Your task to perform on an android device: Search for Mexican restaurants on Maps Image 0: 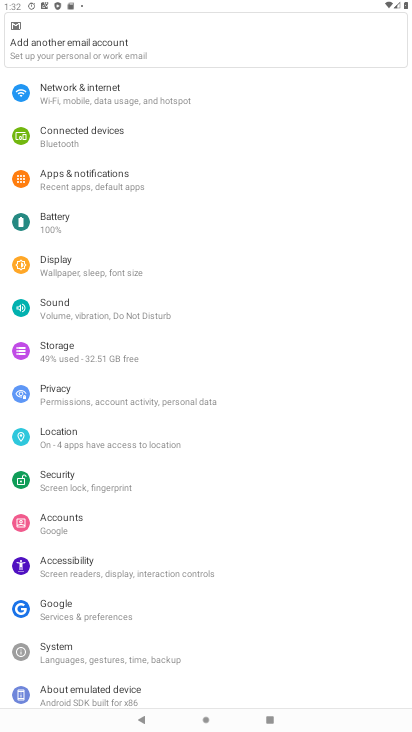
Step 0: press home button
Your task to perform on an android device: Search for Mexican restaurants on Maps Image 1: 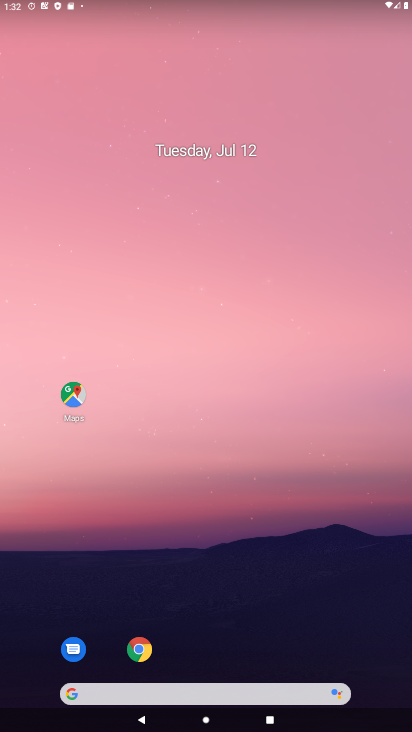
Step 1: drag from (348, 706) to (332, 182)
Your task to perform on an android device: Search for Mexican restaurants on Maps Image 2: 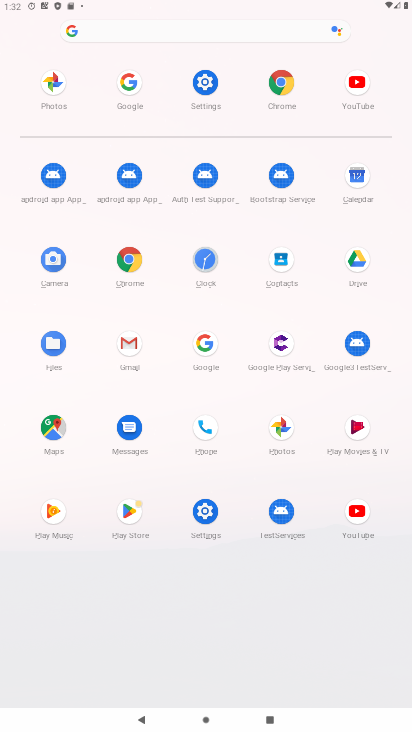
Step 2: click (55, 434)
Your task to perform on an android device: Search for Mexican restaurants on Maps Image 3: 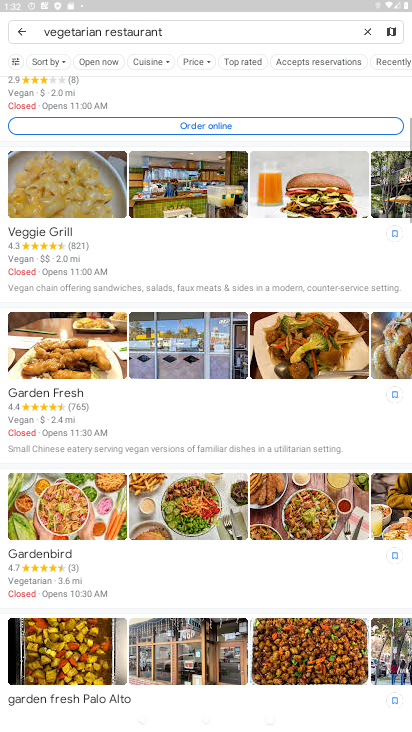
Step 3: press back button
Your task to perform on an android device: Search for Mexican restaurants on Maps Image 4: 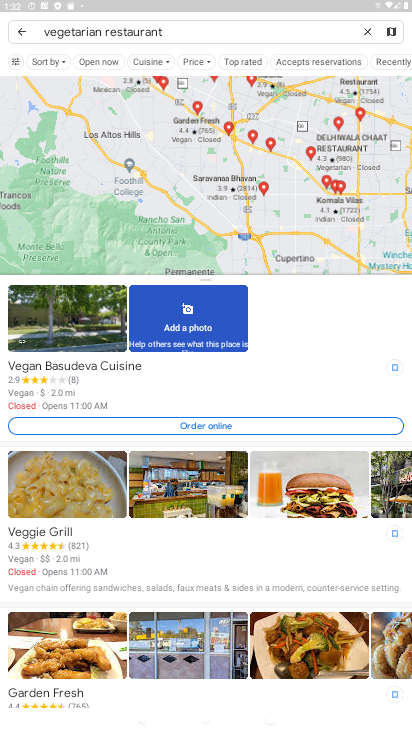
Step 4: click (373, 15)
Your task to perform on an android device: Search for Mexican restaurants on Maps Image 5: 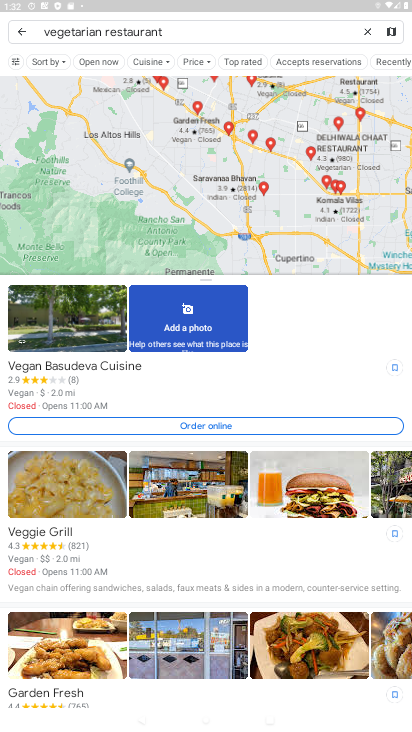
Step 5: click (368, 27)
Your task to perform on an android device: Search for Mexican restaurants on Maps Image 6: 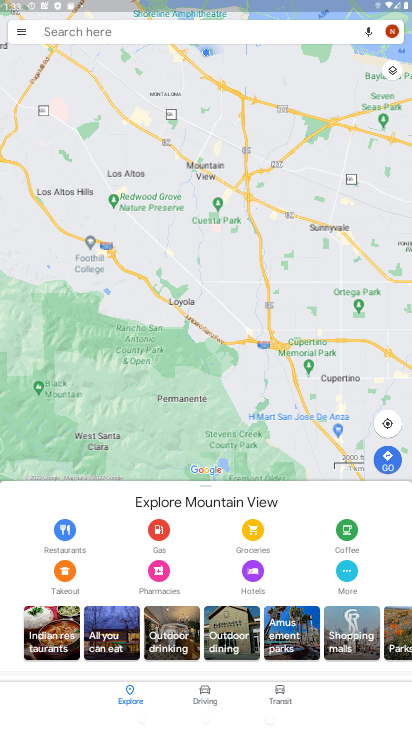
Step 6: click (129, 29)
Your task to perform on an android device: Search for Mexican restaurants on Maps Image 7: 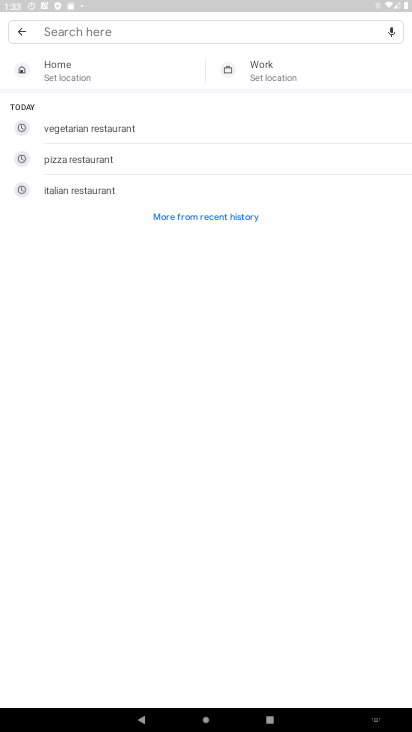
Step 7: type "Mexican restaurants"
Your task to perform on an android device: Search for Mexican restaurants on Maps Image 8: 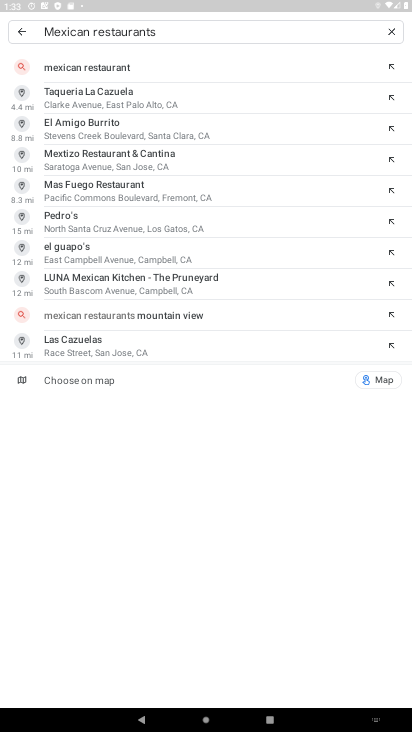
Step 8: click (111, 73)
Your task to perform on an android device: Search for Mexican restaurants on Maps Image 9: 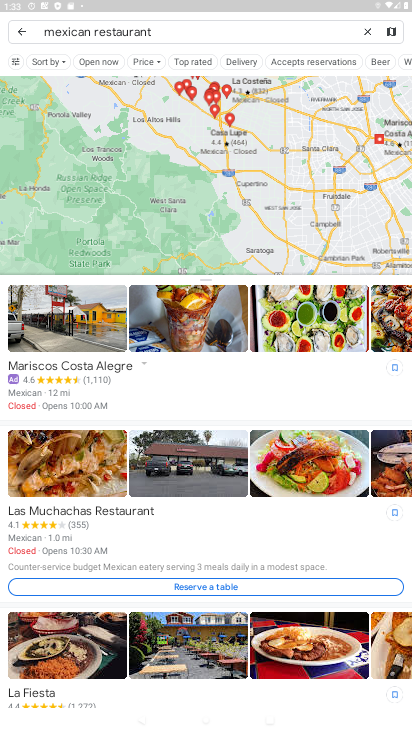
Step 9: task complete